Your task to perform on an android device: Go to Google maps Image 0: 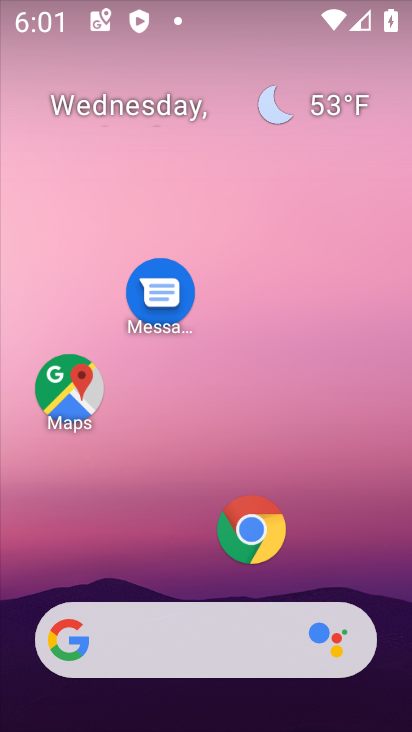
Step 0: click (62, 401)
Your task to perform on an android device: Go to Google maps Image 1: 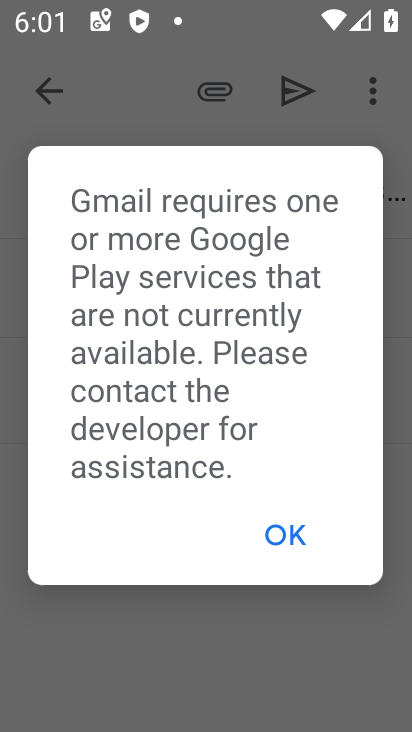
Step 1: click (297, 542)
Your task to perform on an android device: Go to Google maps Image 2: 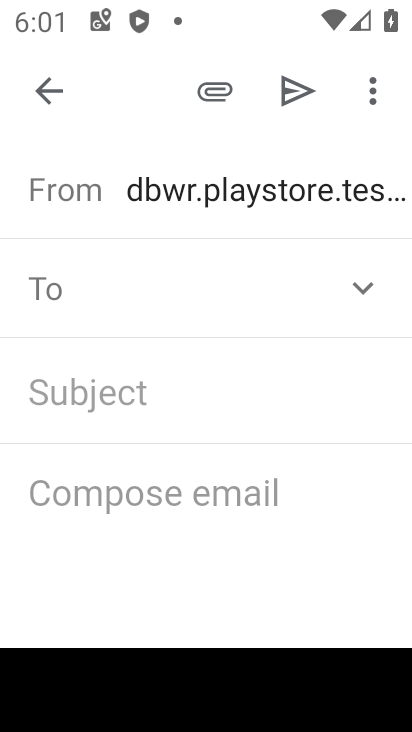
Step 2: click (49, 108)
Your task to perform on an android device: Go to Google maps Image 3: 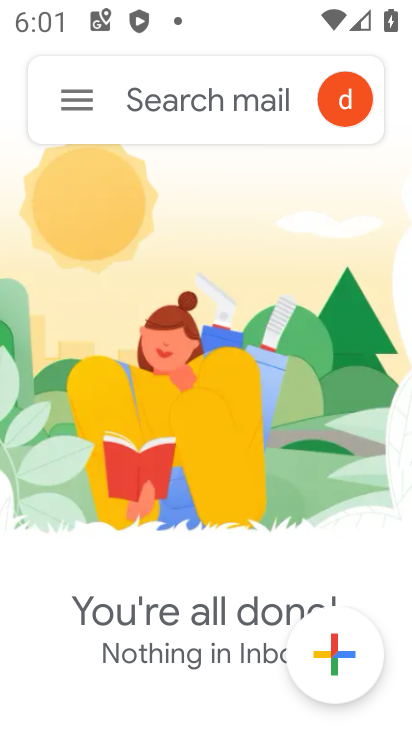
Step 3: press home button
Your task to perform on an android device: Go to Google maps Image 4: 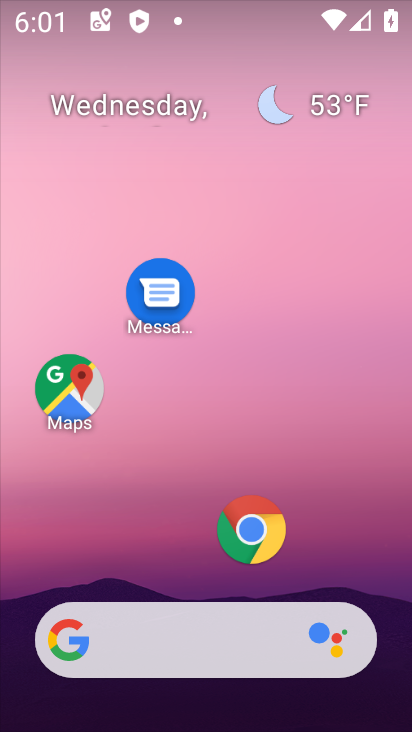
Step 4: click (70, 404)
Your task to perform on an android device: Go to Google maps Image 5: 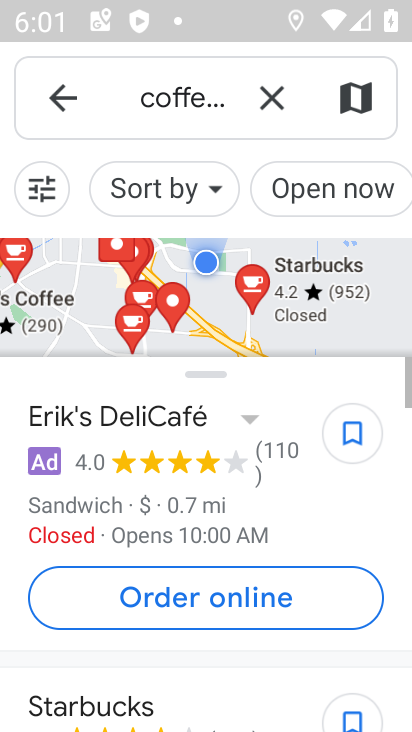
Step 5: click (44, 99)
Your task to perform on an android device: Go to Google maps Image 6: 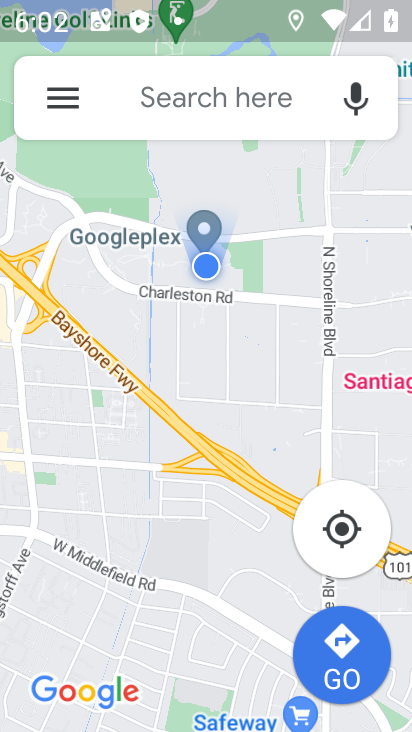
Step 6: task complete